Your task to perform on an android device: open app "DuckDuckGo Privacy Browser" (install if not already installed) Image 0: 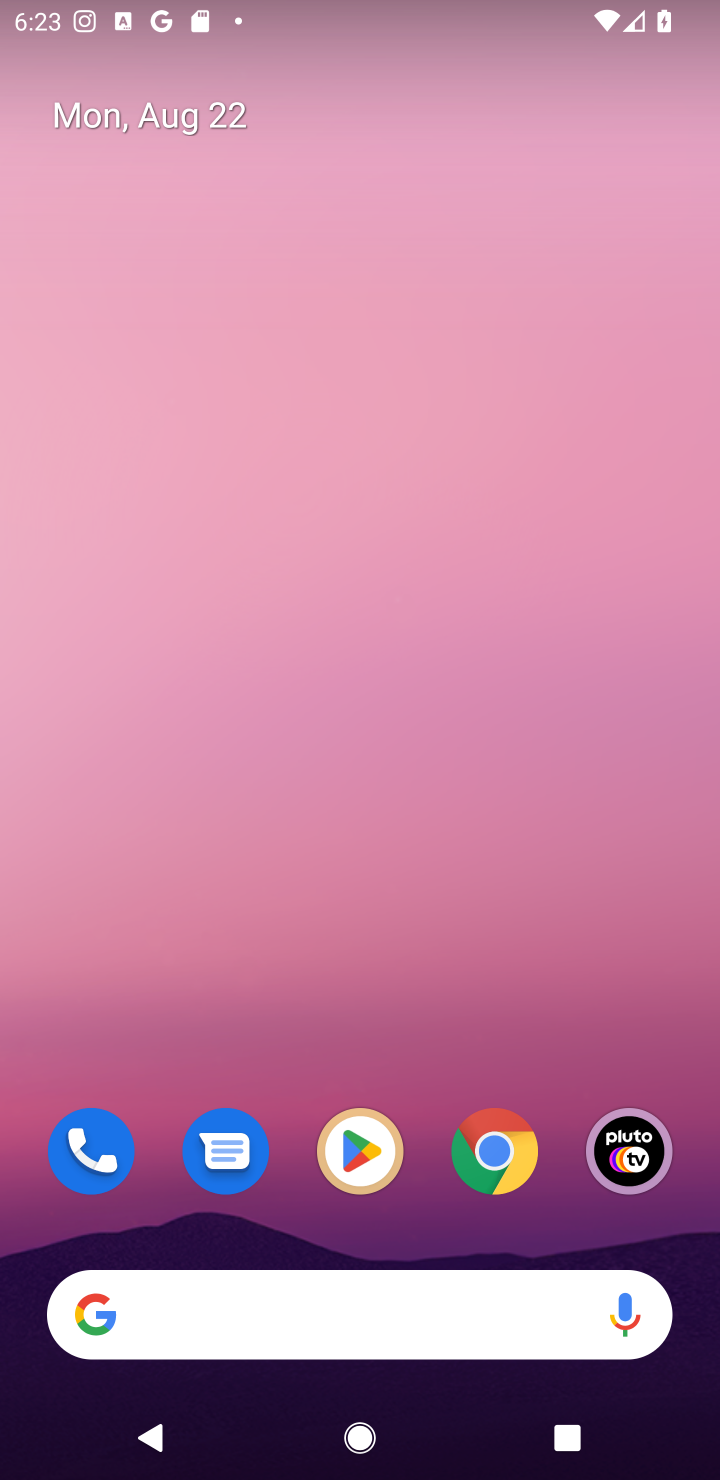
Step 0: press home button
Your task to perform on an android device: open app "DuckDuckGo Privacy Browser" (install if not already installed) Image 1: 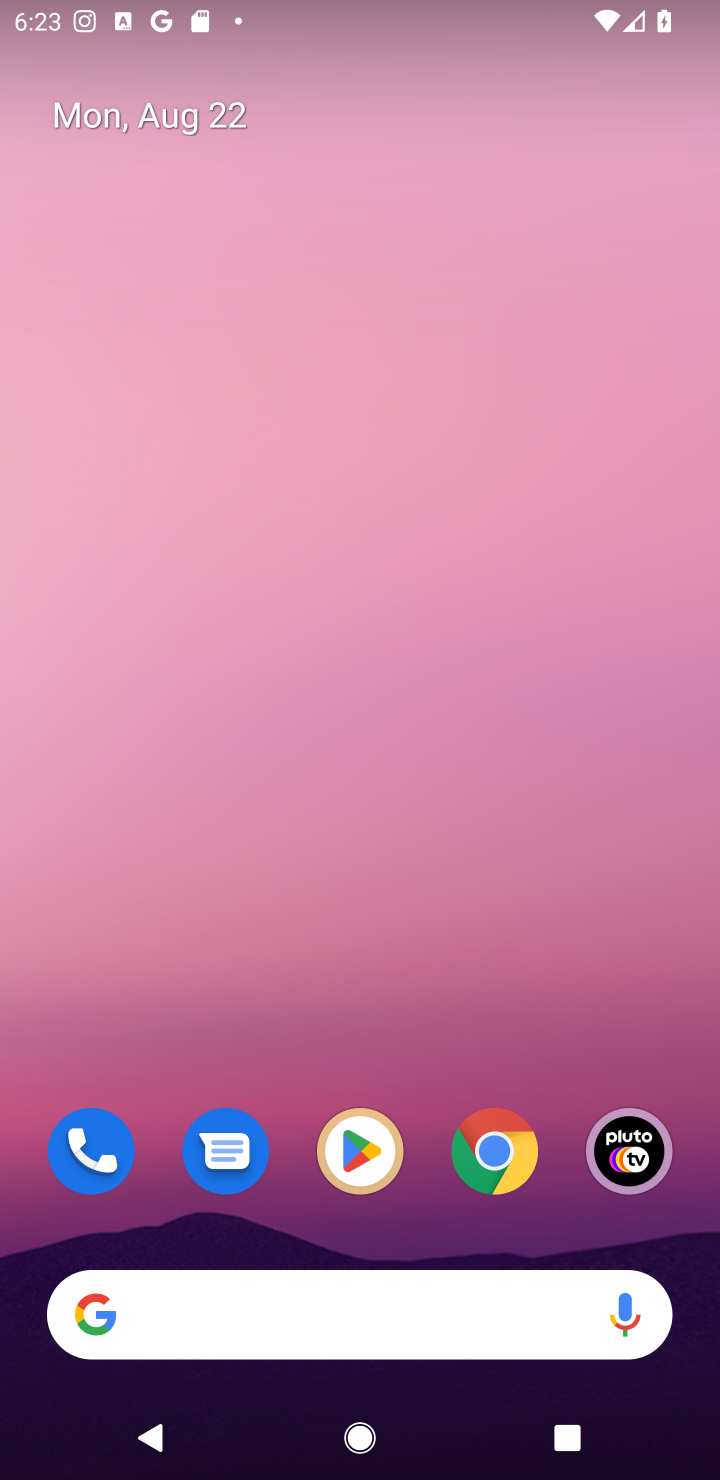
Step 1: click (350, 1143)
Your task to perform on an android device: open app "DuckDuckGo Privacy Browser" (install if not already installed) Image 2: 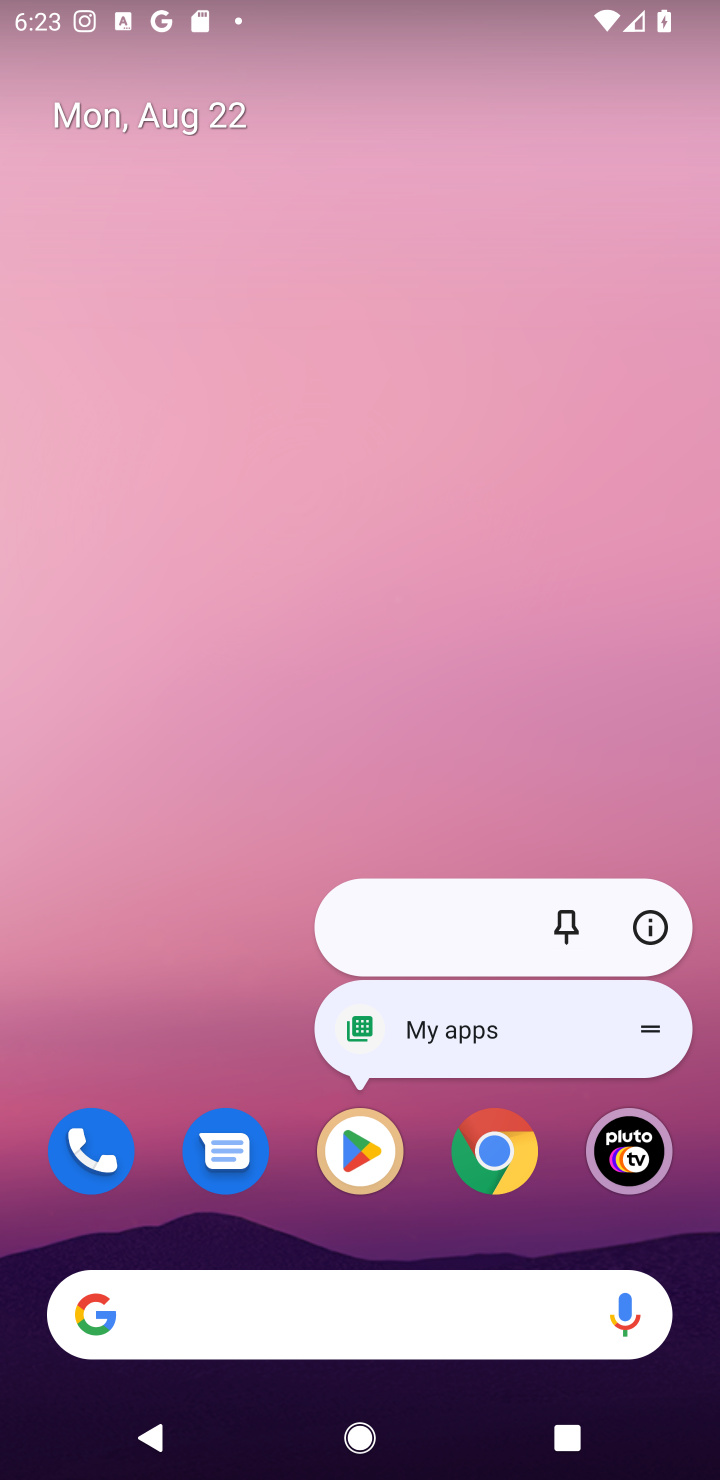
Step 2: click (350, 1156)
Your task to perform on an android device: open app "DuckDuckGo Privacy Browser" (install if not already installed) Image 3: 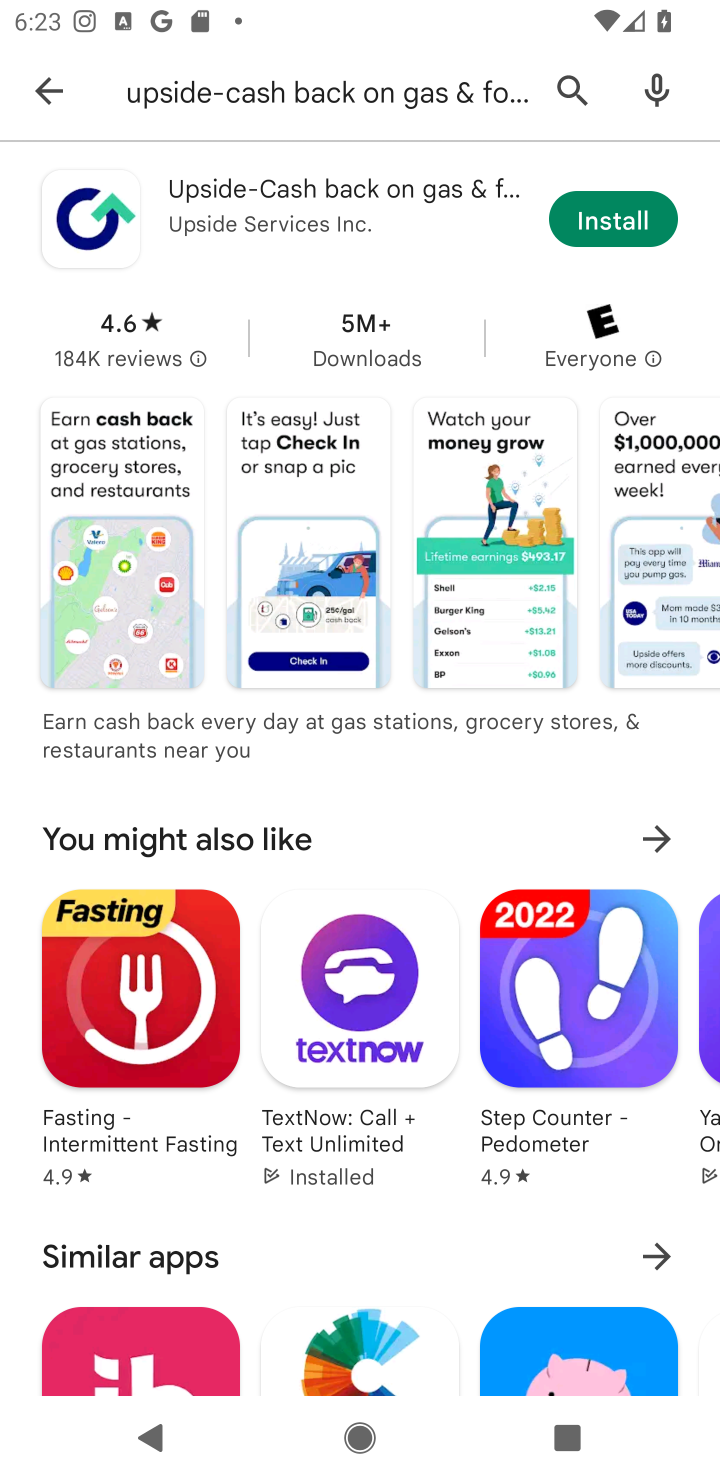
Step 3: click (558, 68)
Your task to perform on an android device: open app "DuckDuckGo Privacy Browser" (install if not already installed) Image 4: 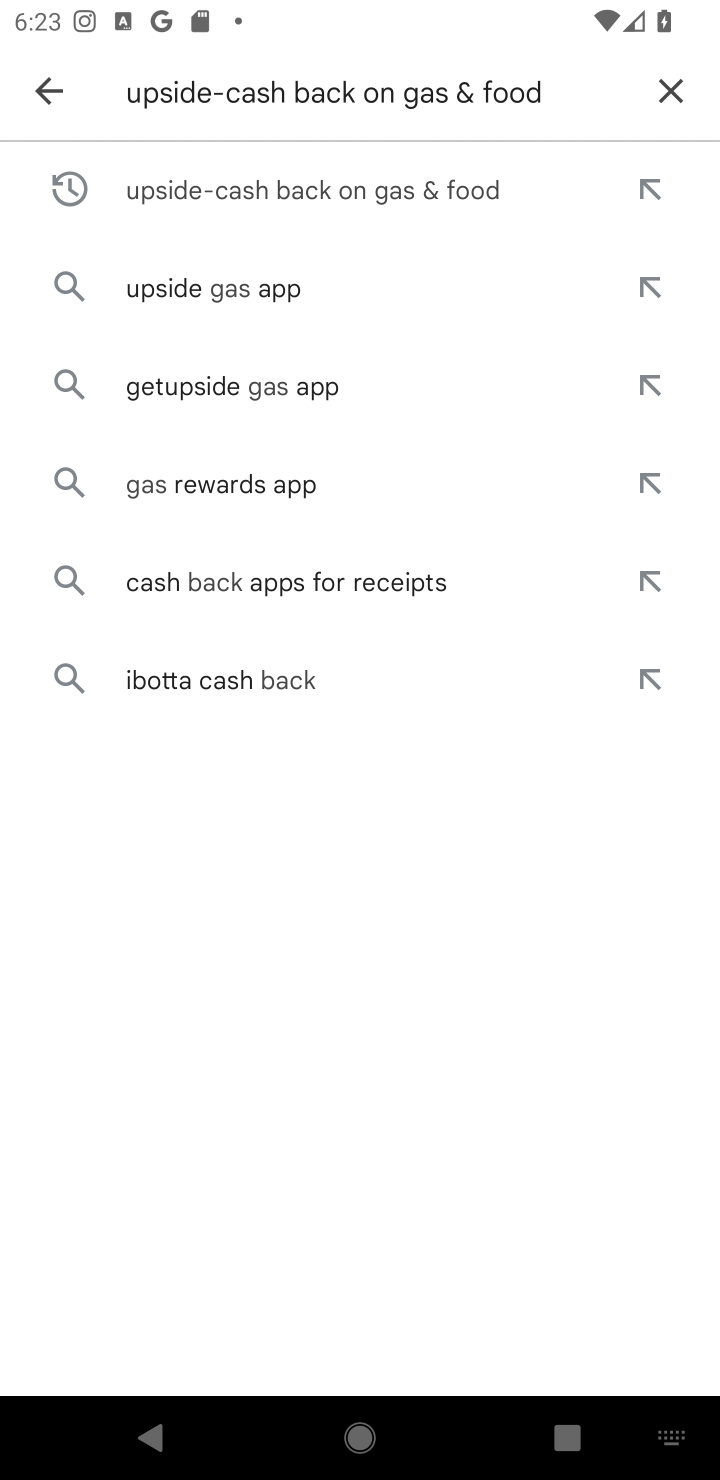
Step 4: click (664, 91)
Your task to perform on an android device: open app "DuckDuckGo Privacy Browser" (install if not already installed) Image 5: 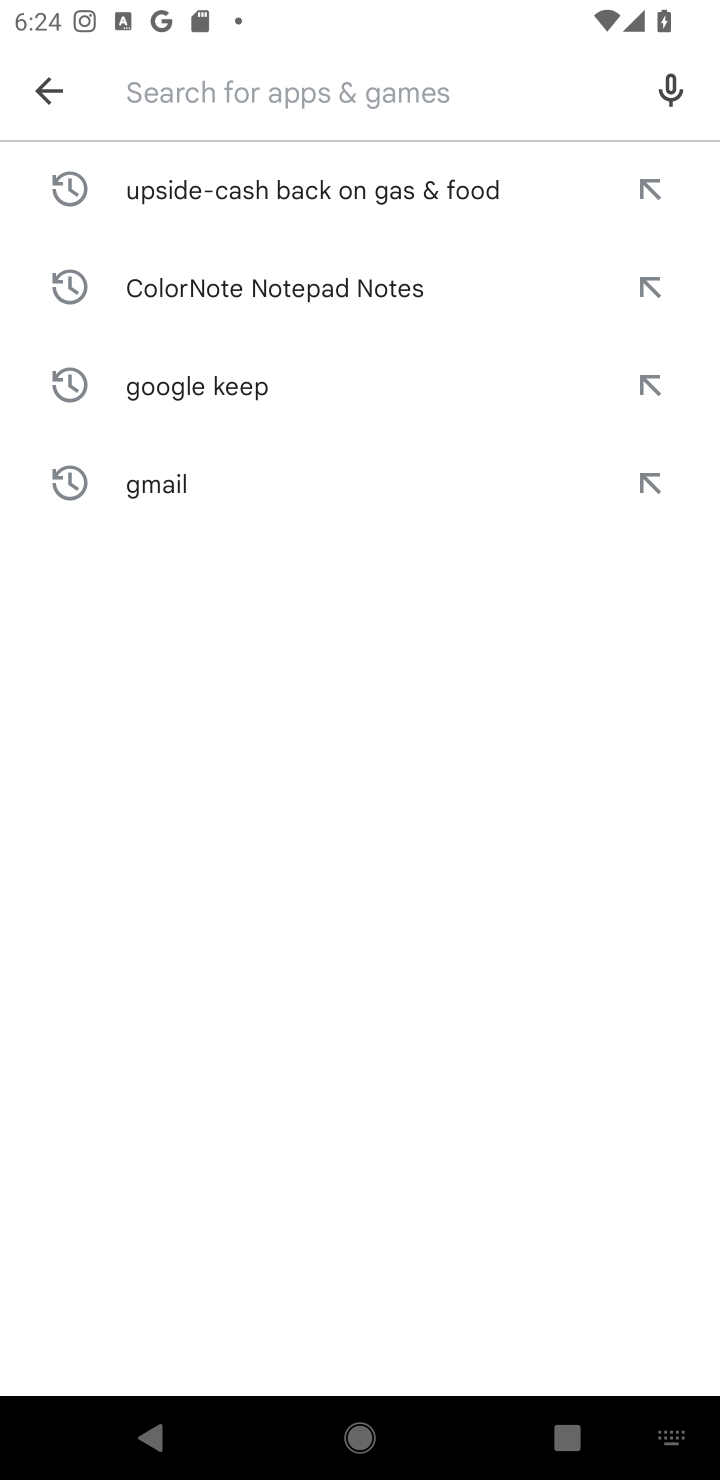
Step 5: type "DuckDuckGo Privacy Browser"
Your task to perform on an android device: open app "DuckDuckGo Privacy Browser" (install if not already installed) Image 6: 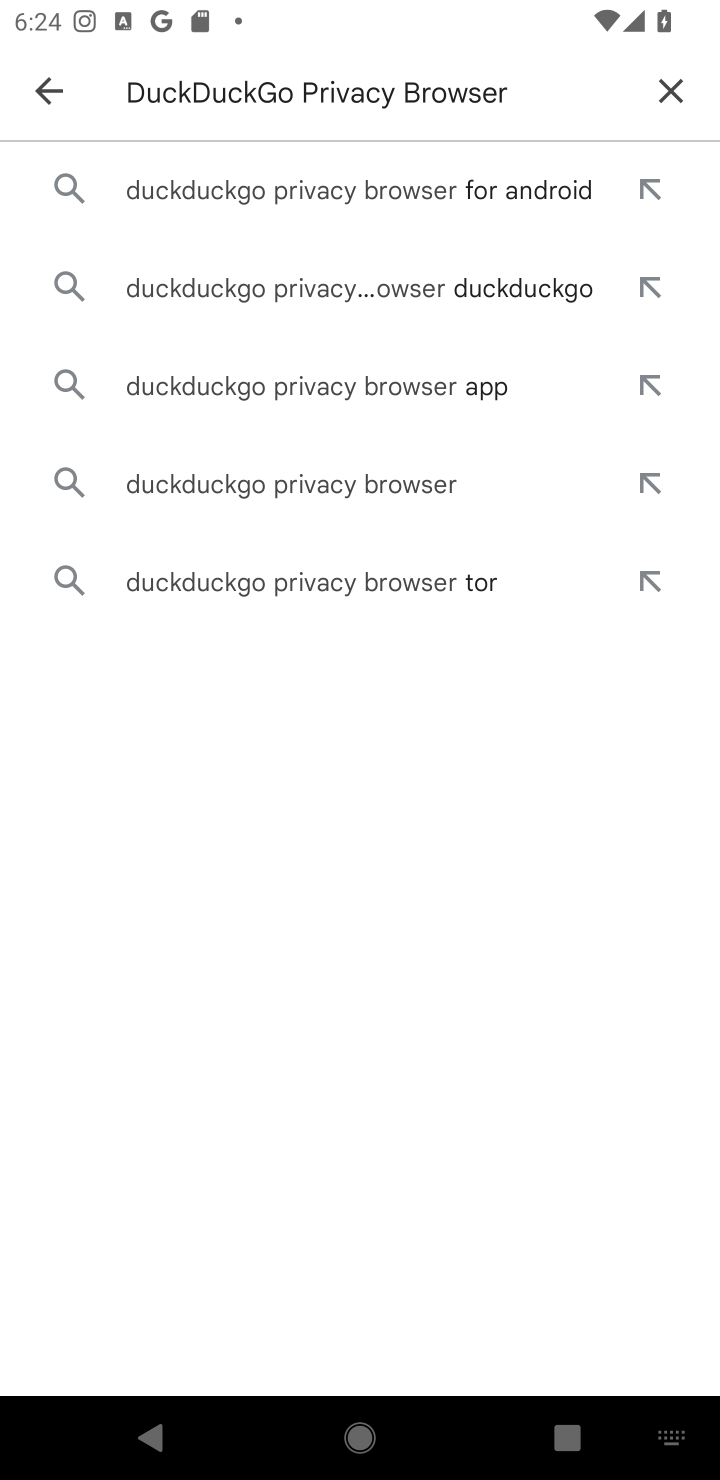
Step 6: click (284, 198)
Your task to perform on an android device: open app "DuckDuckGo Privacy Browser" (install if not already installed) Image 7: 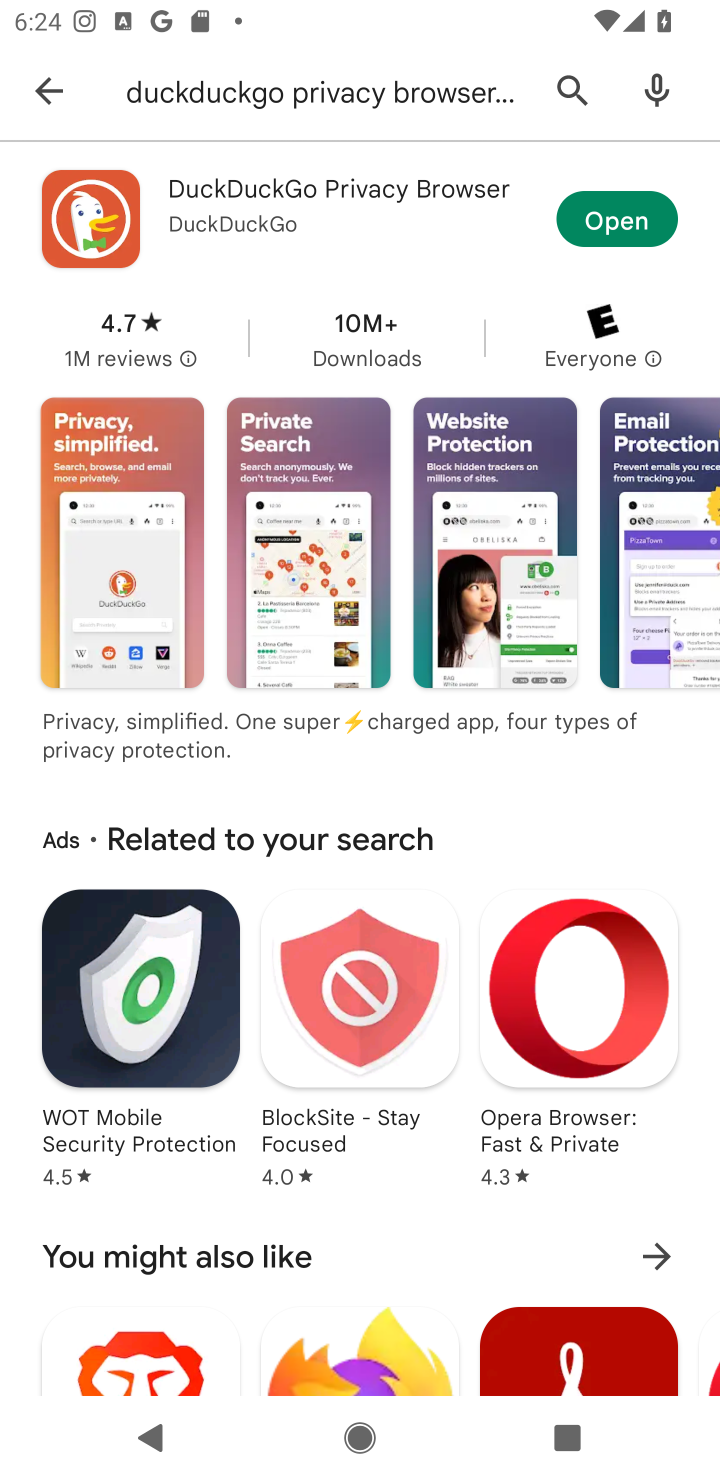
Step 7: click (623, 229)
Your task to perform on an android device: open app "DuckDuckGo Privacy Browser" (install if not already installed) Image 8: 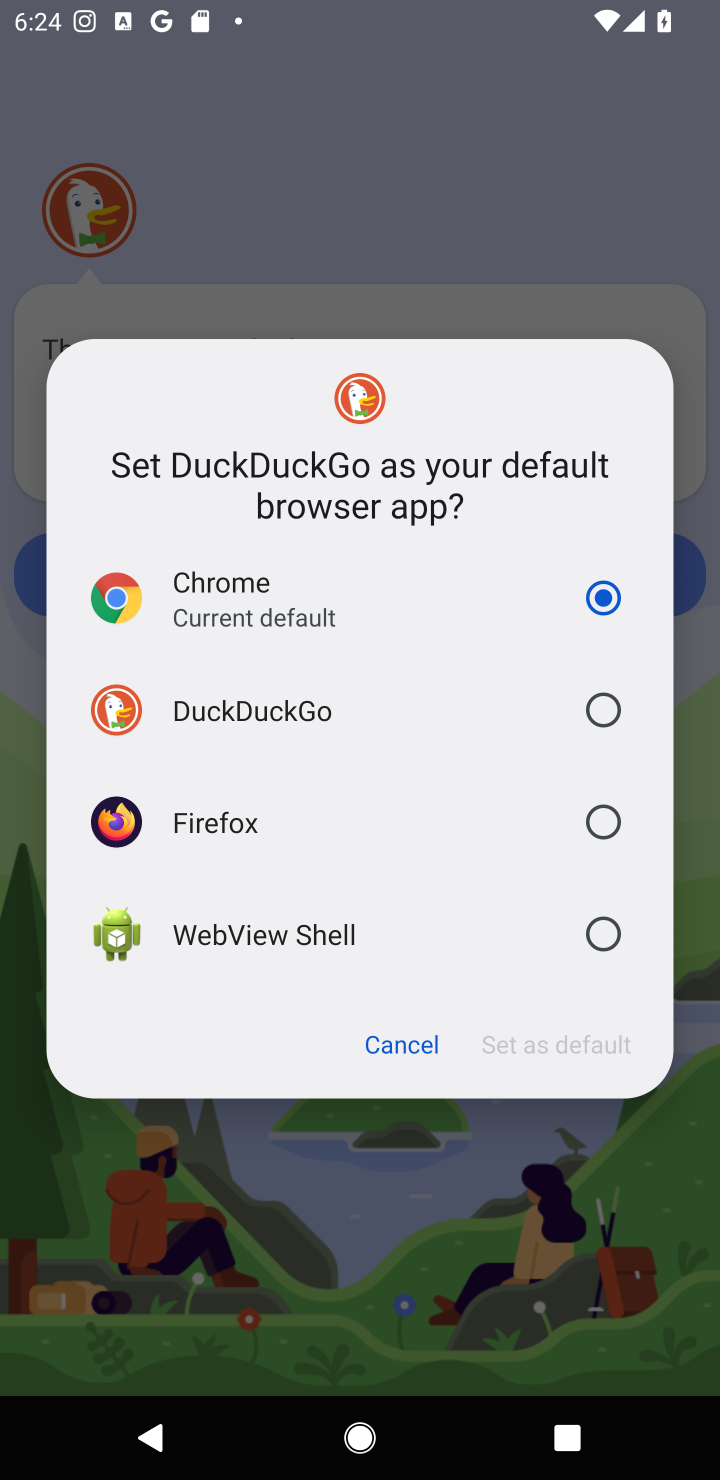
Step 8: task complete